Your task to perform on an android device: toggle wifi Image 0: 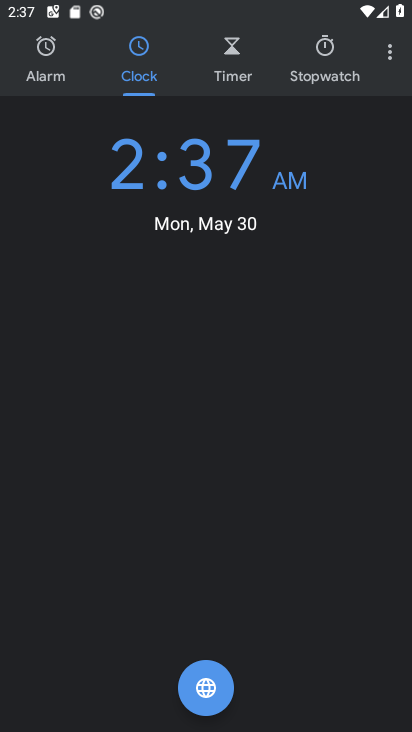
Step 0: press home button
Your task to perform on an android device: toggle wifi Image 1: 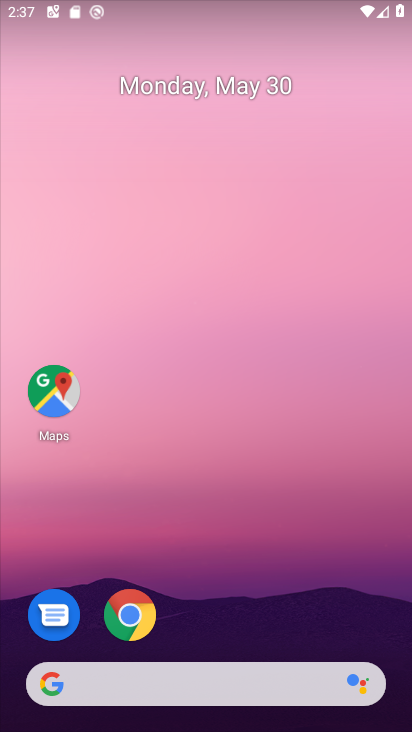
Step 1: drag from (246, 549) to (287, 36)
Your task to perform on an android device: toggle wifi Image 2: 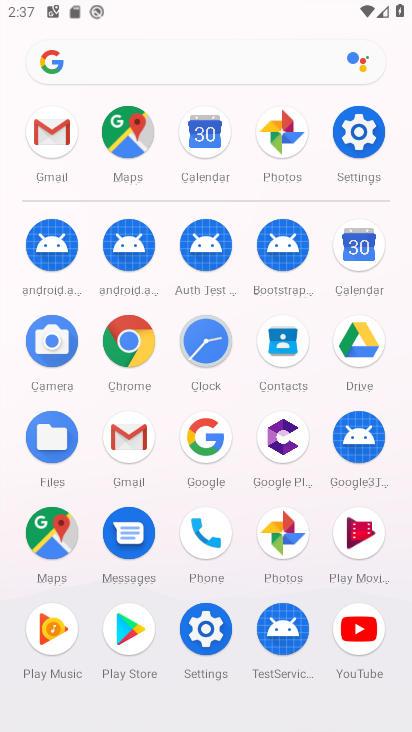
Step 2: click (354, 124)
Your task to perform on an android device: toggle wifi Image 3: 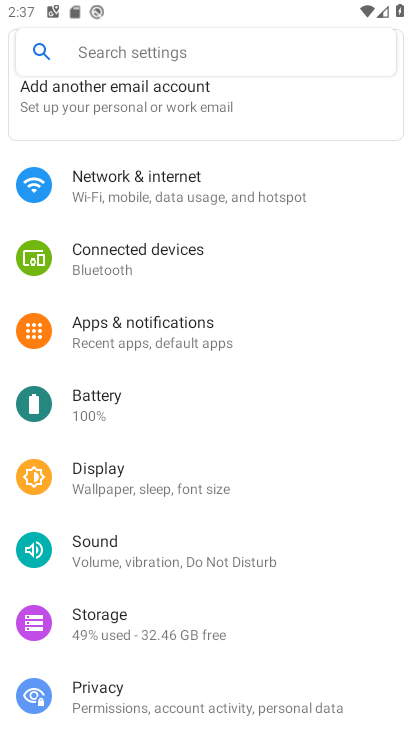
Step 3: click (234, 187)
Your task to perform on an android device: toggle wifi Image 4: 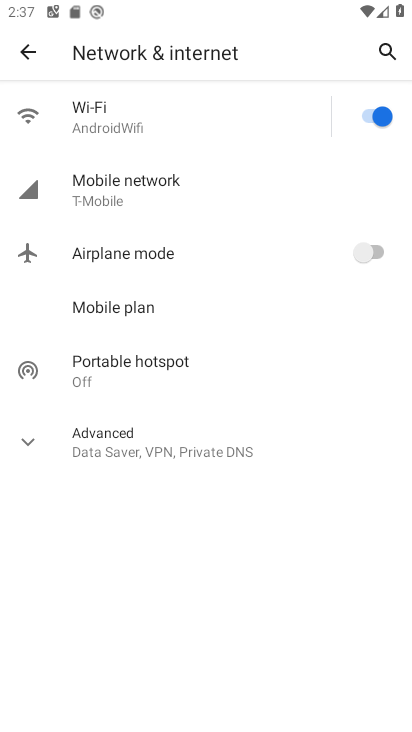
Step 4: click (366, 110)
Your task to perform on an android device: toggle wifi Image 5: 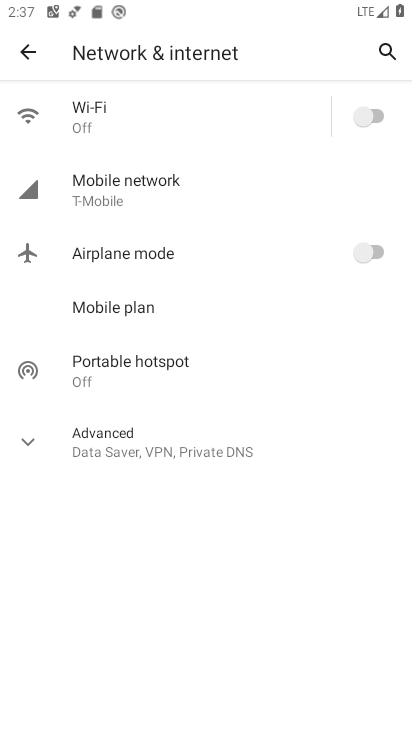
Step 5: task complete